Your task to perform on an android device: Go to Google Image 0: 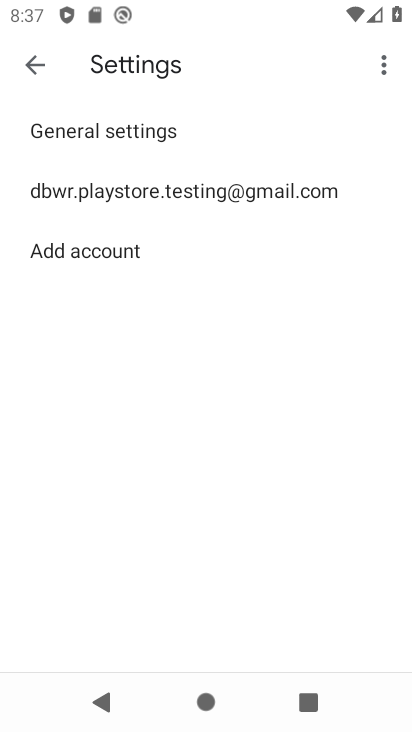
Step 0: press home button
Your task to perform on an android device: Go to Google Image 1: 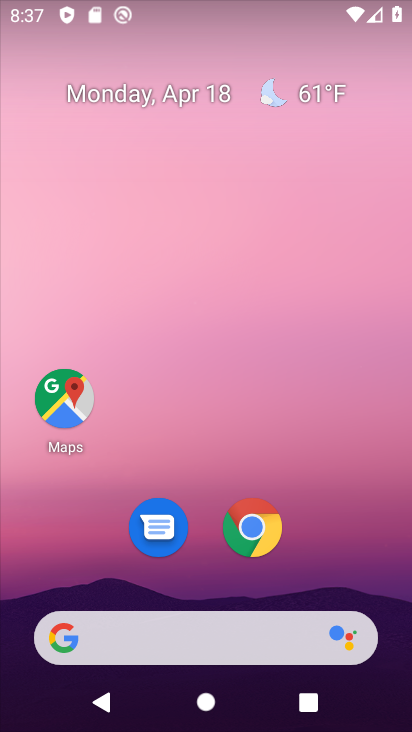
Step 1: click (67, 640)
Your task to perform on an android device: Go to Google Image 2: 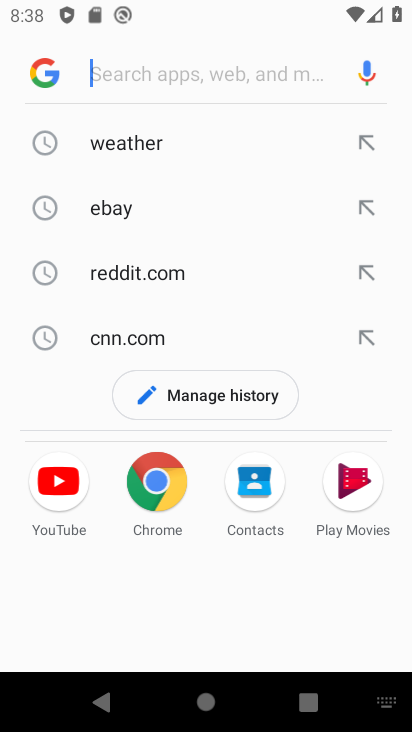
Step 2: click (27, 70)
Your task to perform on an android device: Go to Google Image 3: 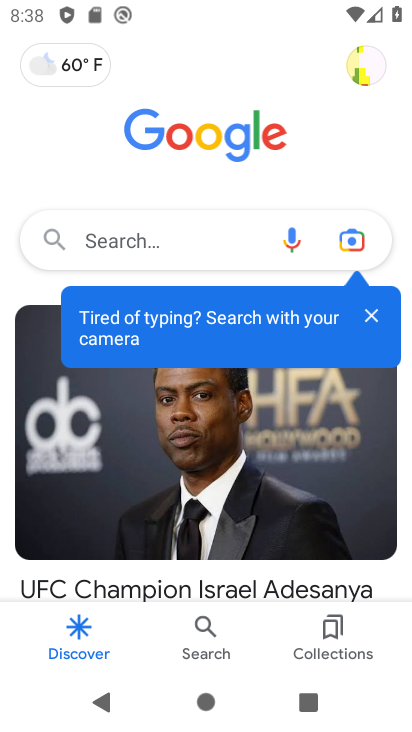
Step 3: task complete